Your task to perform on an android device: toggle sleep mode Image 0: 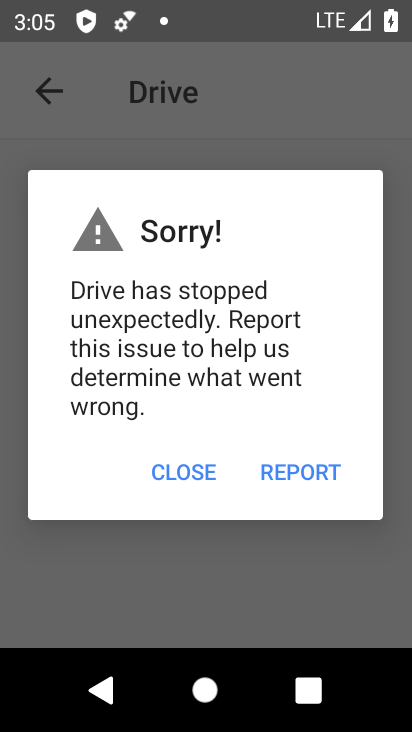
Step 0: press home button
Your task to perform on an android device: toggle sleep mode Image 1: 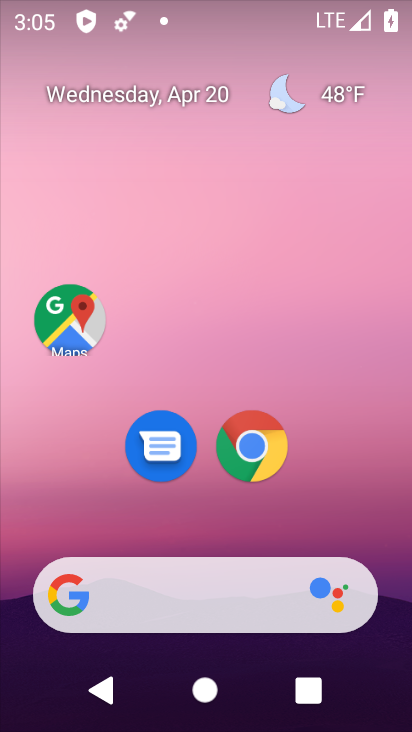
Step 1: drag from (373, 536) to (363, 27)
Your task to perform on an android device: toggle sleep mode Image 2: 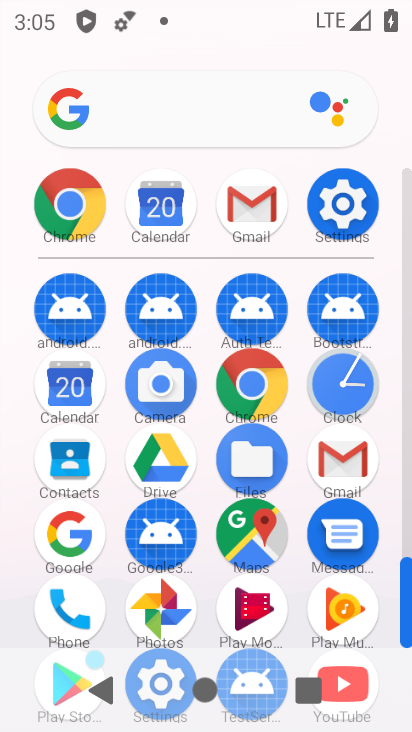
Step 2: click (344, 202)
Your task to perform on an android device: toggle sleep mode Image 3: 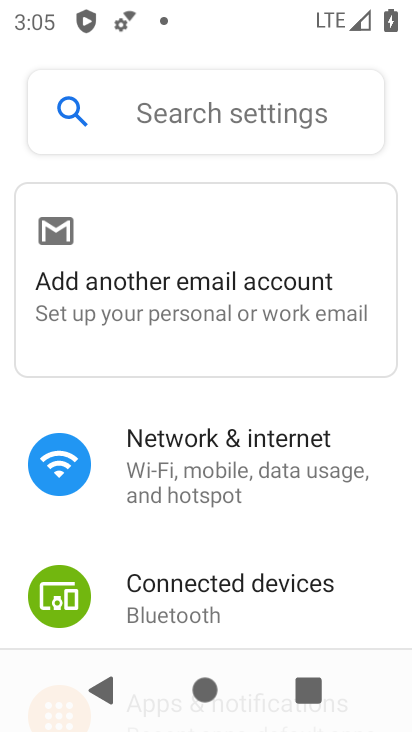
Step 3: drag from (147, 543) to (188, 368)
Your task to perform on an android device: toggle sleep mode Image 4: 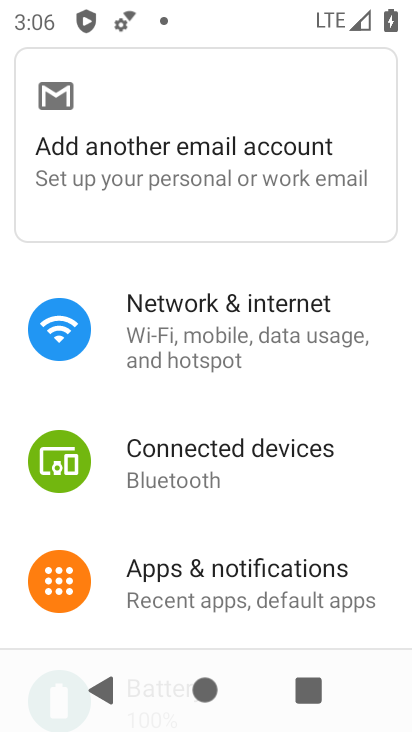
Step 4: drag from (200, 545) to (254, 388)
Your task to perform on an android device: toggle sleep mode Image 5: 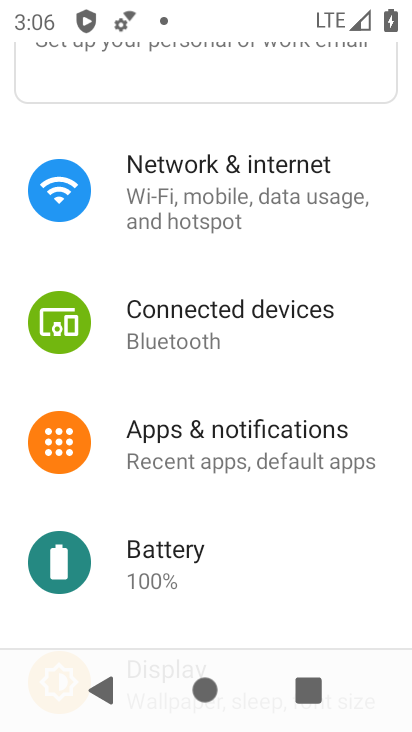
Step 5: drag from (236, 545) to (268, 451)
Your task to perform on an android device: toggle sleep mode Image 6: 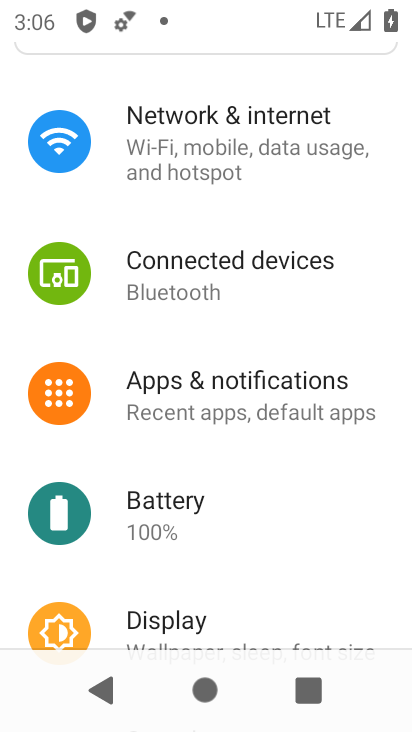
Step 6: drag from (259, 578) to (298, 465)
Your task to perform on an android device: toggle sleep mode Image 7: 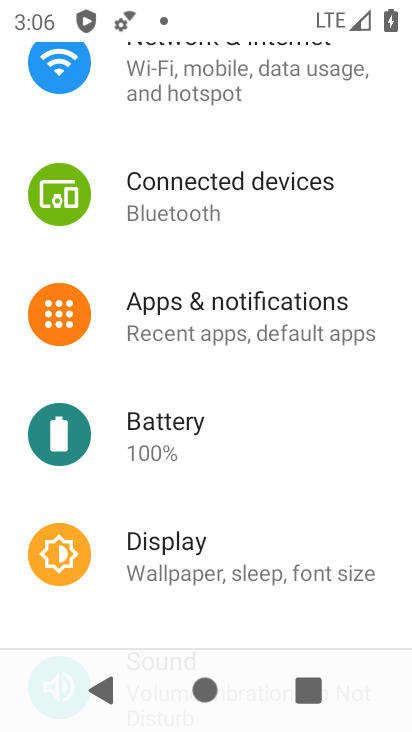
Step 7: click (302, 570)
Your task to perform on an android device: toggle sleep mode Image 8: 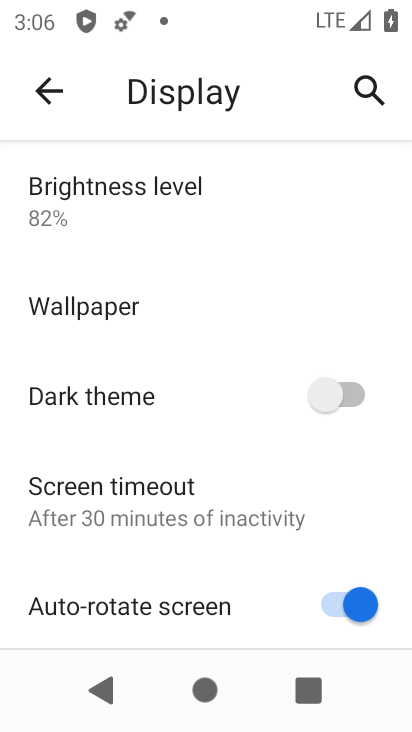
Step 8: drag from (159, 459) to (206, 368)
Your task to perform on an android device: toggle sleep mode Image 9: 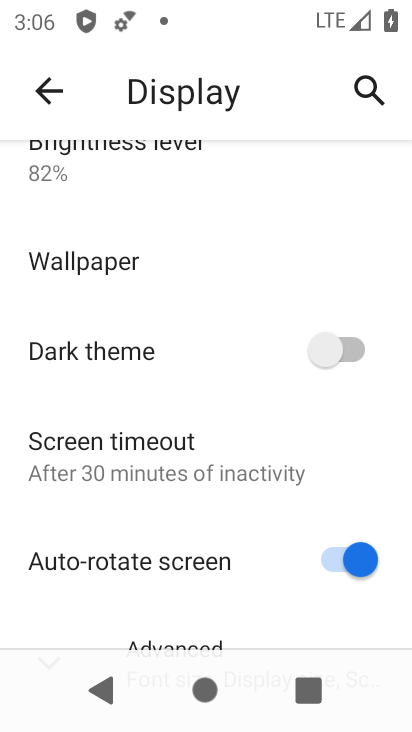
Step 9: drag from (131, 535) to (177, 367)
Your task to perform on an android device: toggle sleep mode Image 10: 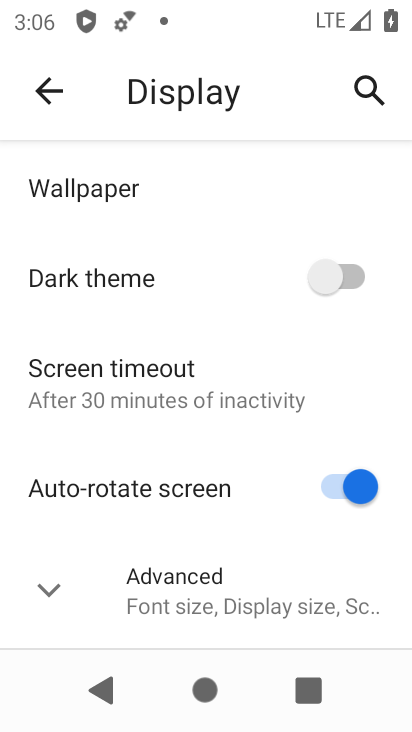
Step 10: drag from (105, 536) to (150, 396)
Your task to perform on an android device: toggle sleep mode Image 11: 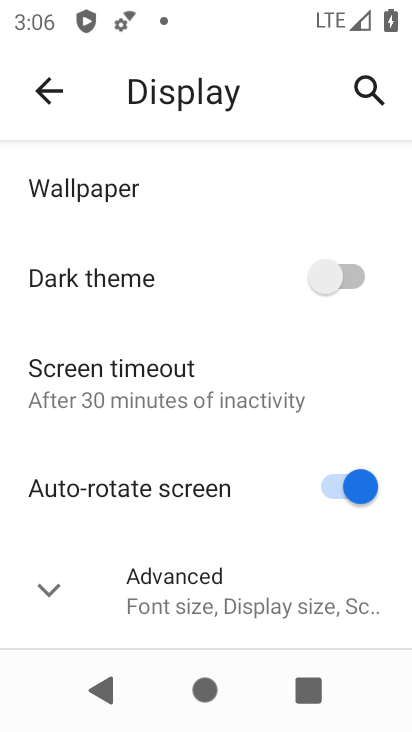
Step 11: click (204, 607)
Your task to perform on an android device: toggle sleep mode Image 12: 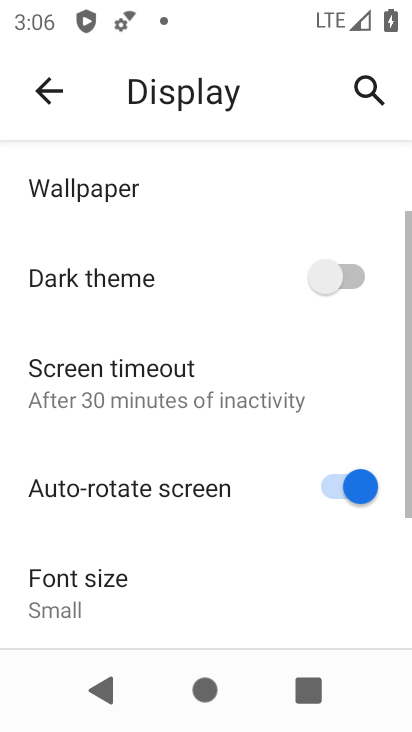
Step 12: task complete